Your task to perform on an android device: delete location history Image 0: 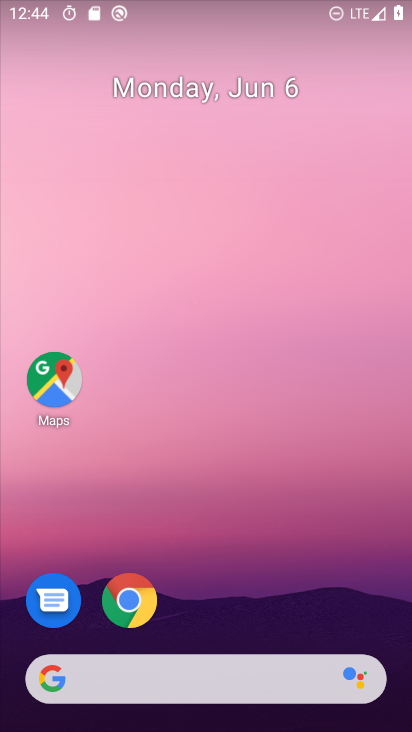
Step 0: drag from (221, 601) to (265, 319)
Your task to perform on an android device: delete location history Image 1: 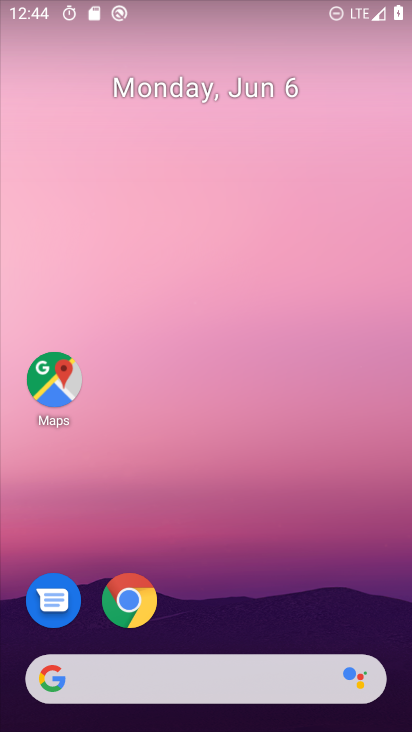
Step 1: drag from (214, 619) to (260, 200)
Your task to perform on an android device: delete location history Image 2: 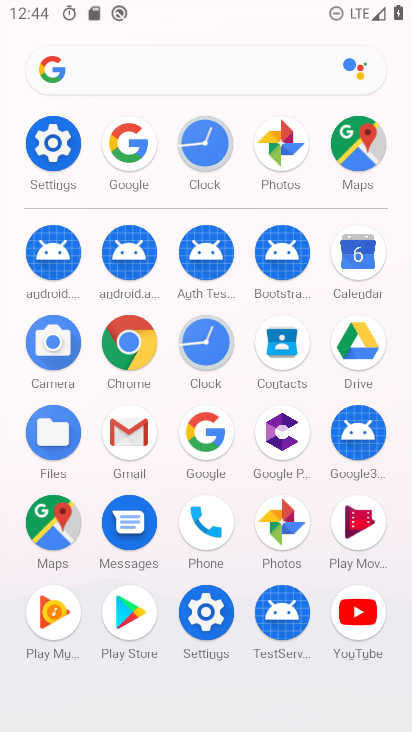
Step 2: click (341, 154)
Your task to perform on an android device: delete location history Image 3: 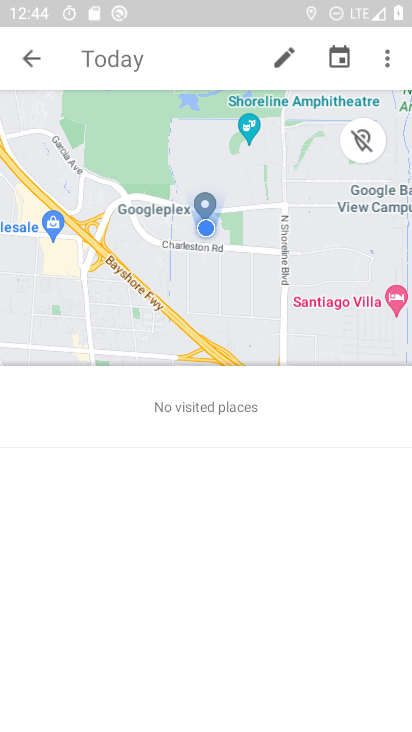
Step 3: click (383, 55)
Your task to perform on an android device: delete location history Image 4: 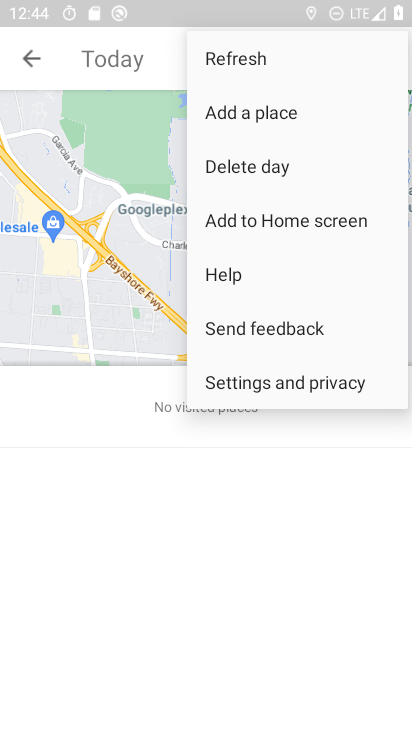
Step 4: click (283, 377)
Your task to perform on an android device: delete location history Image 5: 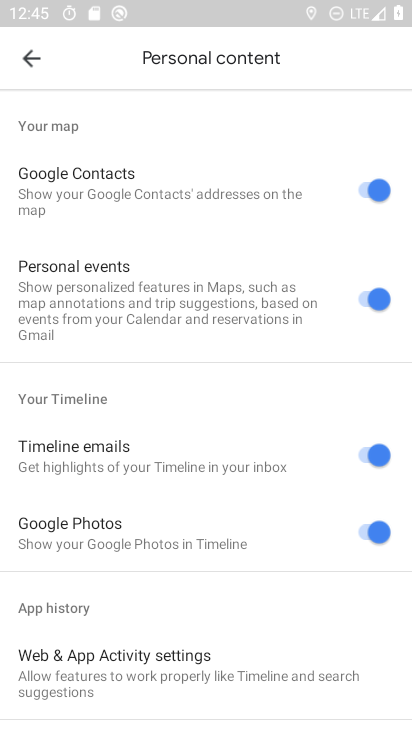
Step 5: drag from (224, 615) to (219, 262)
Your task to perform on an android device: delete location history Image 6: 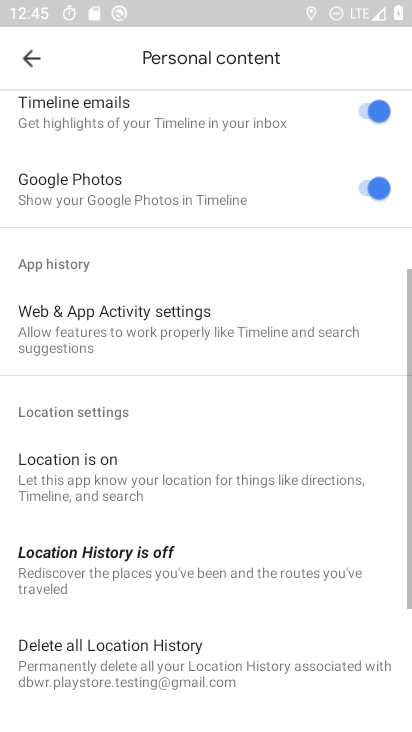
Step 6: drag from (217, 558) to (228, 344)
Your task to perform on an android device: delete location history Image 7: 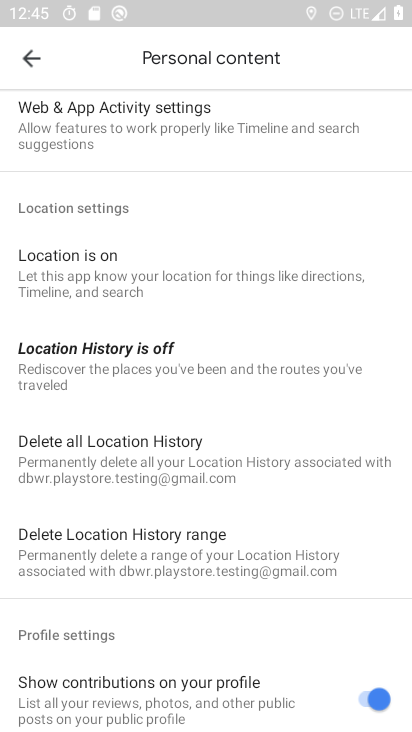
Step 7: click (199, 472)
Your task to perform on an android device: delete location history Image 8: 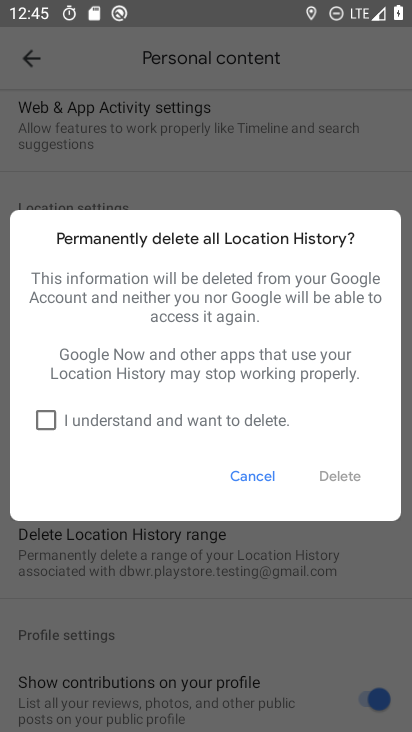
Step 8: click (141, 437)
Your task to perform on an android device: delete location history Image 9: 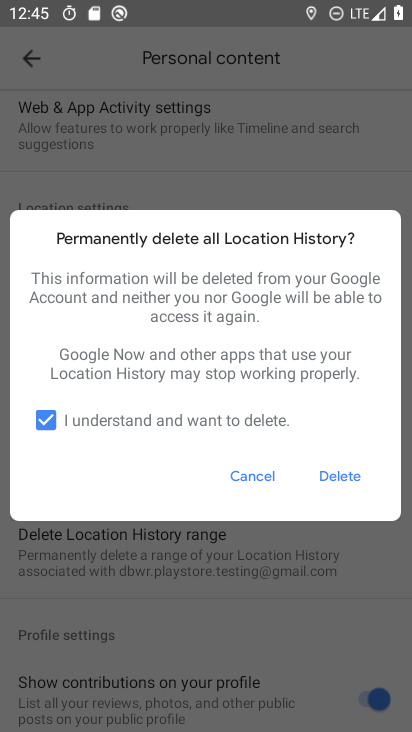
Step 9: click (346, 474)
Your task to perform on an android device: delete location history Image 10: 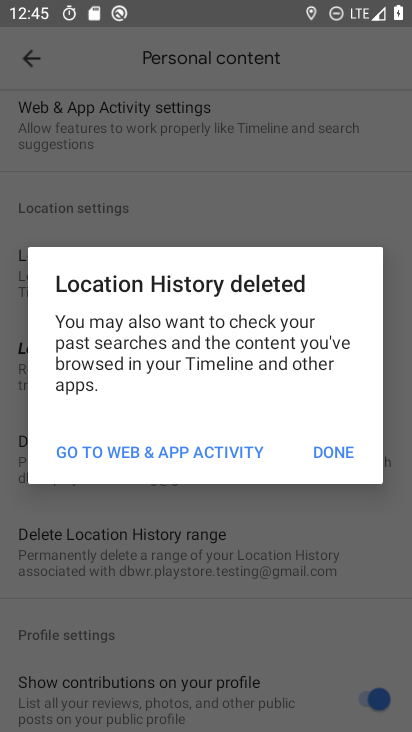
Step 10: click (323, 446)
Your task to perform on an android device: delete location history Image 11: 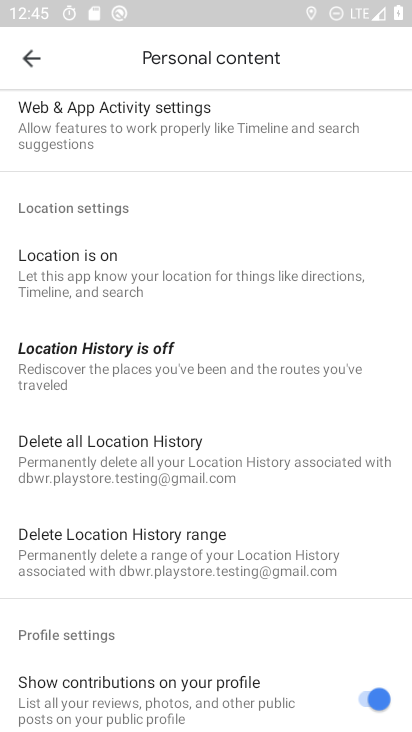
Step 11: task complete